Your task to perform on an android device: remove spam from my inbox in the gmail app Image 0: 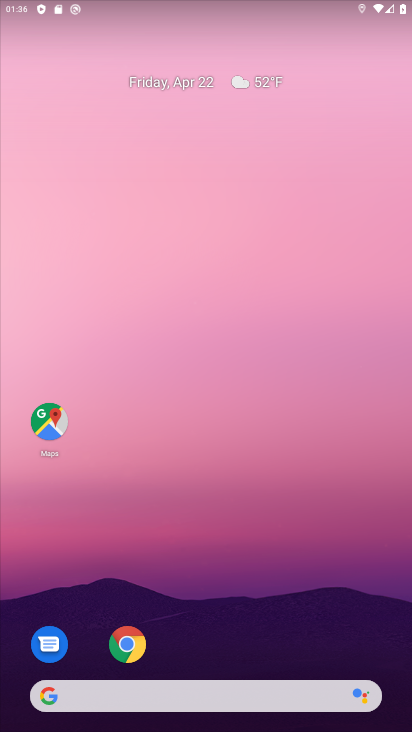
Step 0: drag from (252, 658) to (252, 193)
Your task to perform on an android device: remove spam from my inbox in the gmail app Image 1: 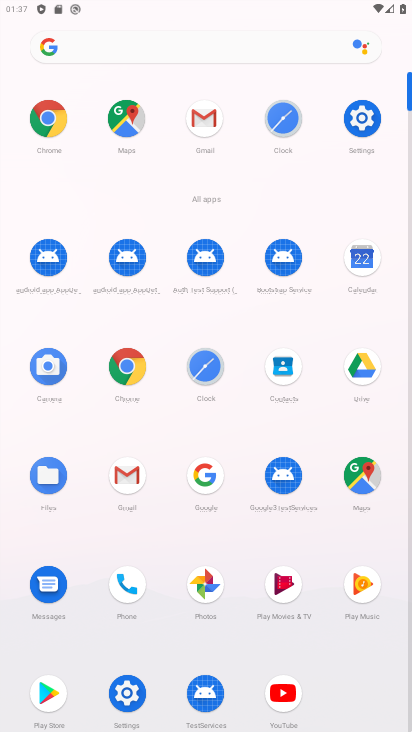
Step 1: click (207, 127)
Your task to perform on an android device: remove spam from my inbox in the gmail app Image 2: 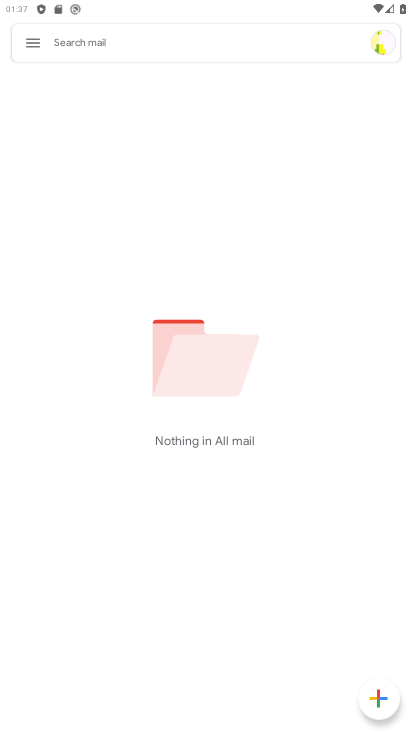
Step 2: click (37, 45)
Your task to perform on an android device: remove spam from my inbox in the gmail app Image 3: 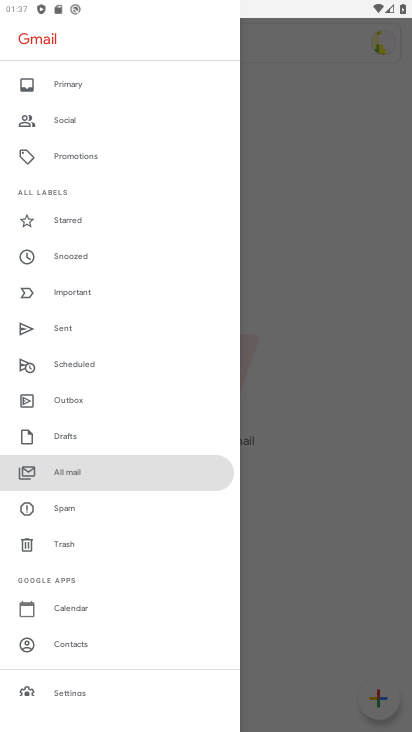
Step 3: click (115, 508)
Your task to perform on an android device: remove spam from my inbox in the gmail app Image 4: 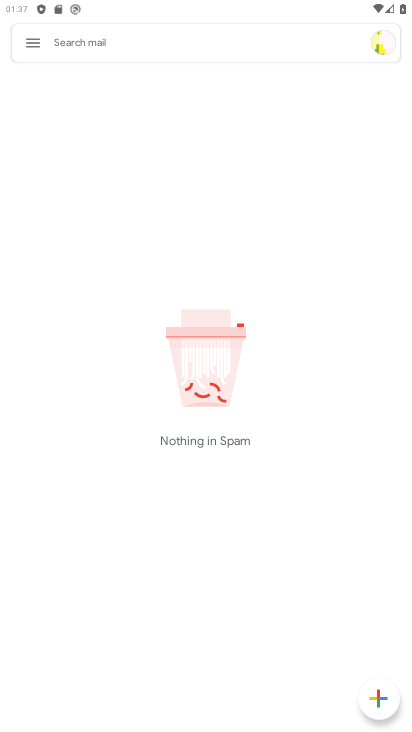
Step 4: task complete